Your task to perform on an android device: Open internet settings Image 0: 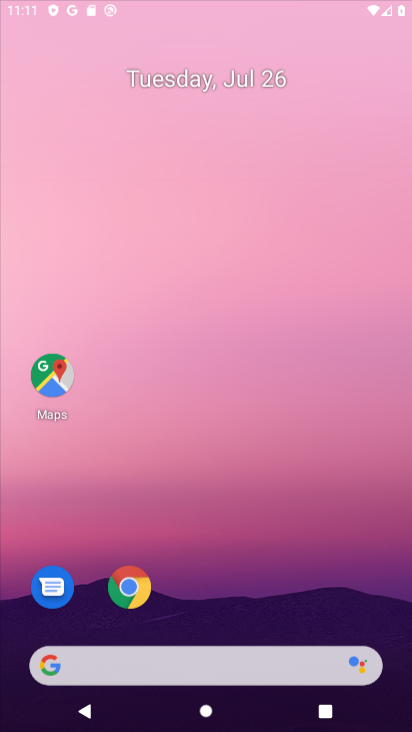
Step 0: press home button
Your task to perform on an android device: Open internet settings Image 1: 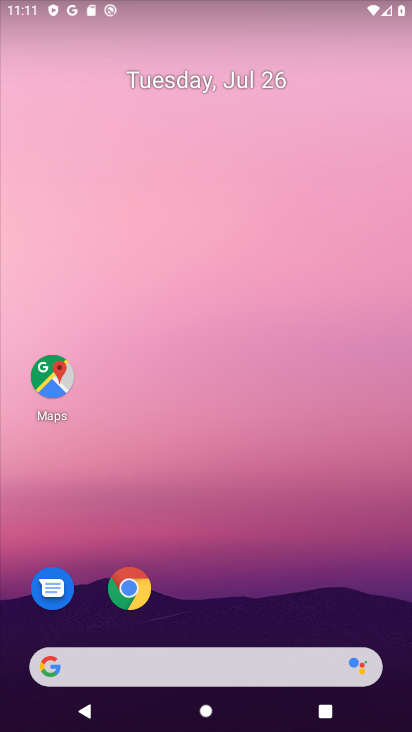
Step 1: drag from (213, 628) to (248, 10)
Your task to perform on an android device: Open internet settings Image 2: 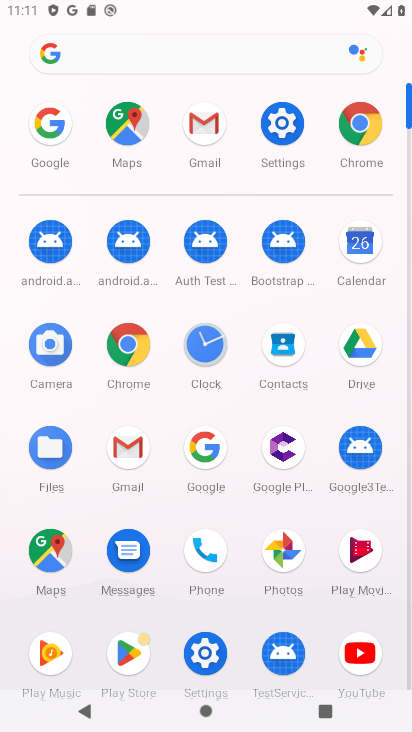
Step 2: click (278, 116)
Your task to perform on an android device: Open internet settings Image 3: 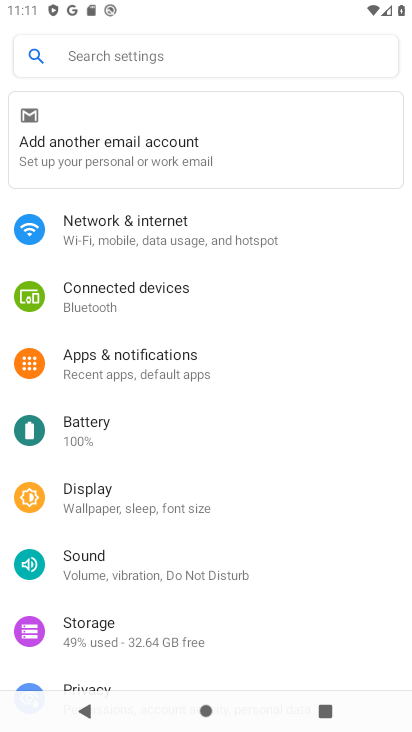
Step 3: click (201, 220)
Your task to perform on an android device: Open internet settings Image 4: 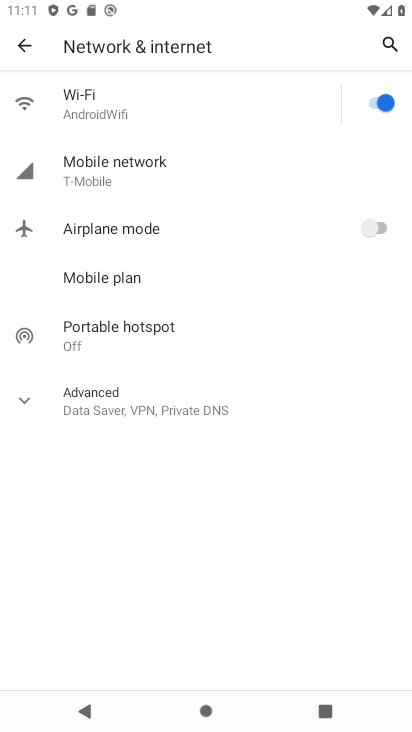
Step 4: click (30, 395)
Your task to perform on an android device: Open internet settings Image 5: 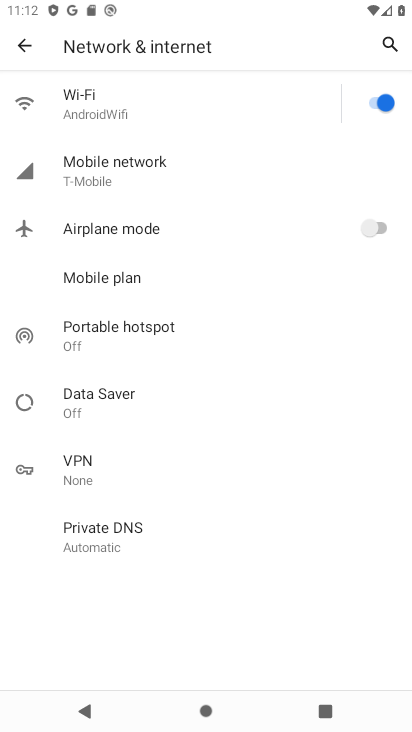
Step 5: task complete